Your task to perform on an android device: Search for Mexican restaurants on Maps Image 0: 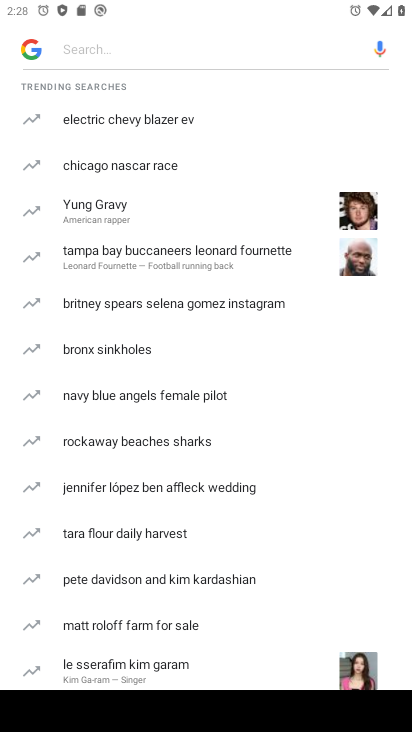
Step 0: press back button
Your task to perform on an android device: Search for Mexican restaurants on Maps Image 1: 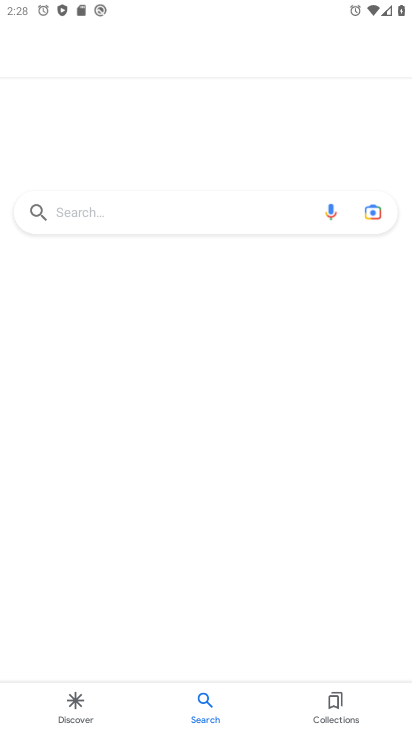
Step 1: press back button
Your task to perform on an android device: Search for Mexican restaurants on Maps Image 2: 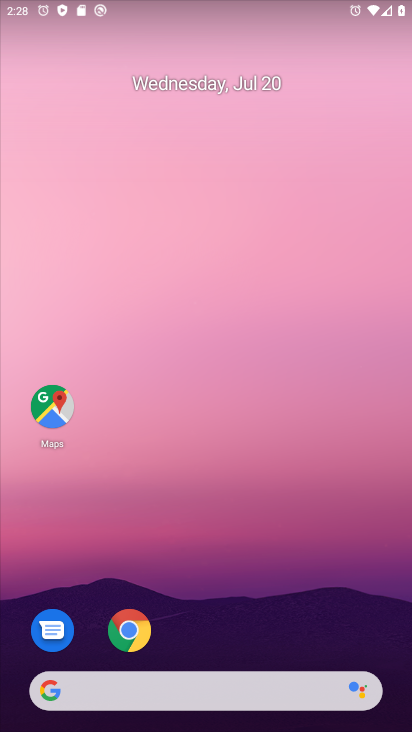
Step 2: click (62, 398)
Your task to perform on an android device: Search for Mexican restaurants on Maps Image 3: 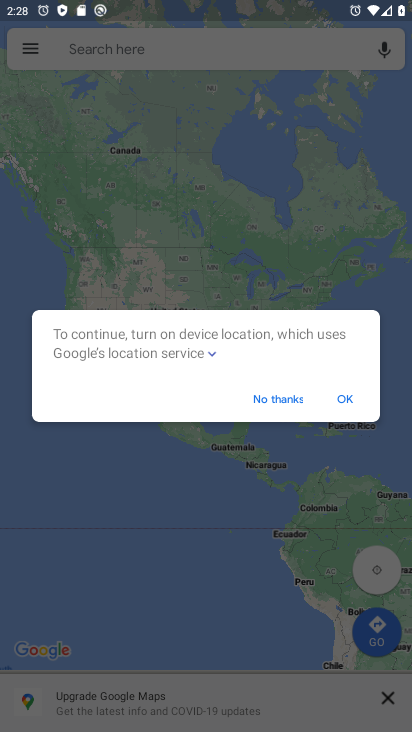
Step 3: click (249, 407)
Your task to perform on an android device: Search for Mexican restaurants on Maps Image 4: 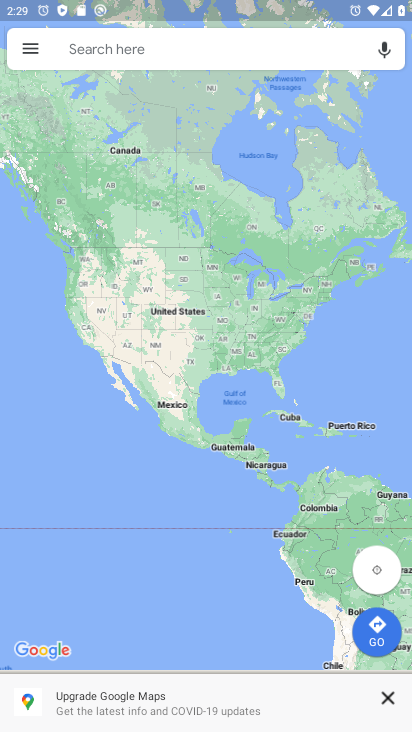
Step 4: click (213, 55)
Your task to perform on an android device: Search for Mexican restaurants on Maps Image 5: 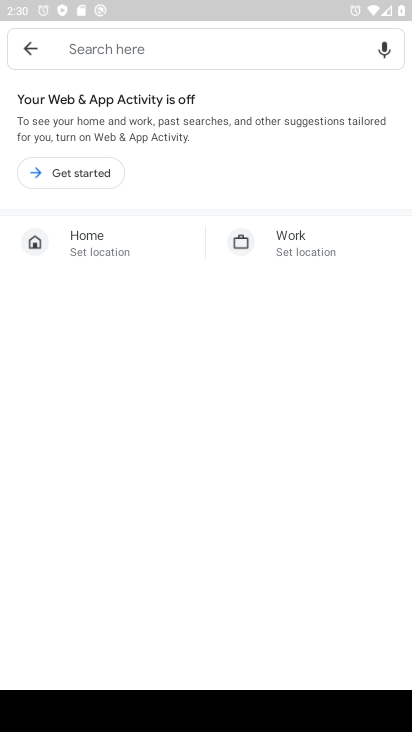
Step 5: task complete